Your task to perform on an android device: set an alarm Image 0: 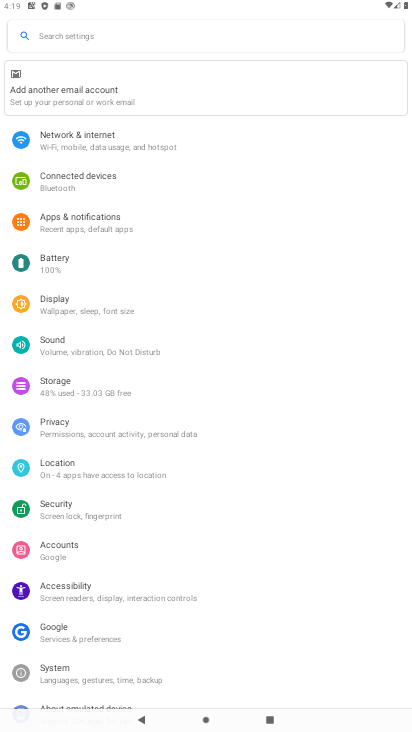
Step 0: press home button
Your task to perform on an android device: set an alarm Image 1: 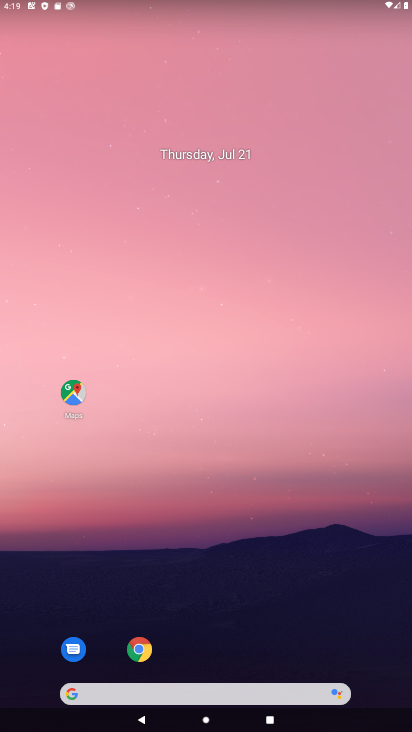
Step 1: drag from (192, 582) to (123, 150)
Your task to perform on an android device: set an alarm Image 2: 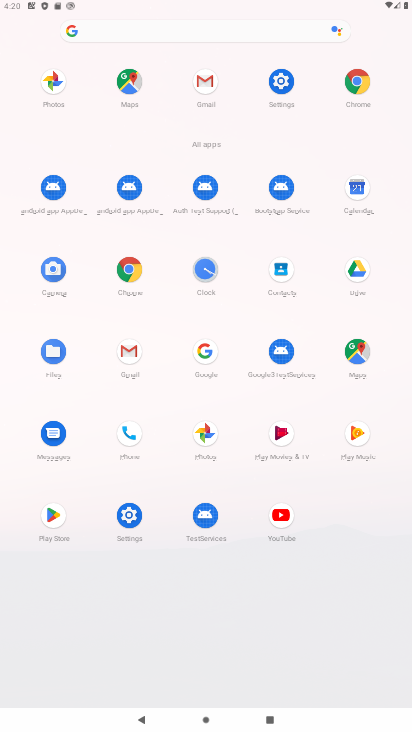
Step 2: click (221, 287)
Your task to perform on an android device: set an alarm Image 3: 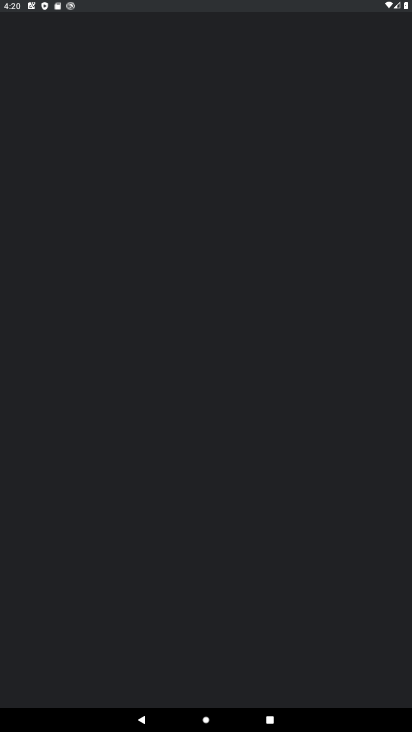
Step 3: click (221, 284)
Your task to perform on an android device: set an alarm Image 4: 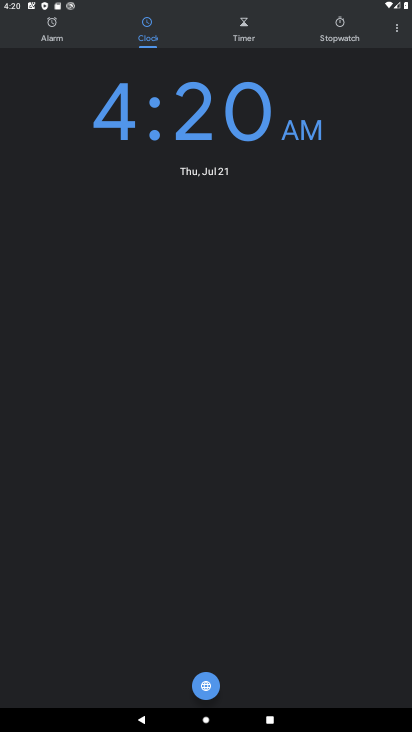
Step 4: drag from (72, 64) to (52, 32)
Your task to perform on an android device: set an alarm Image 5: 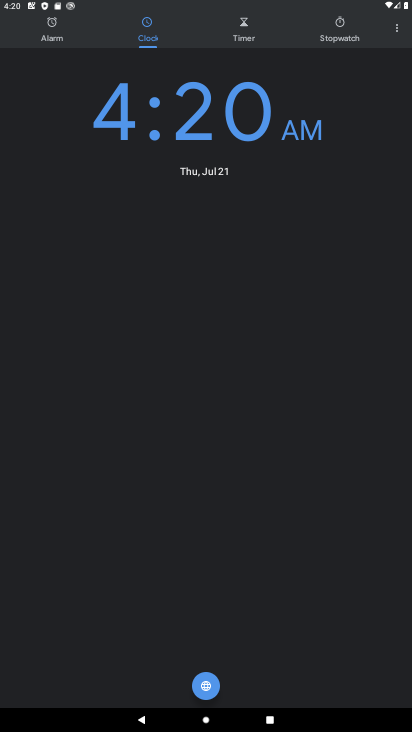
Step 5: click (52, 32)
Your task to perform on an android device: set an alarm Image 6: 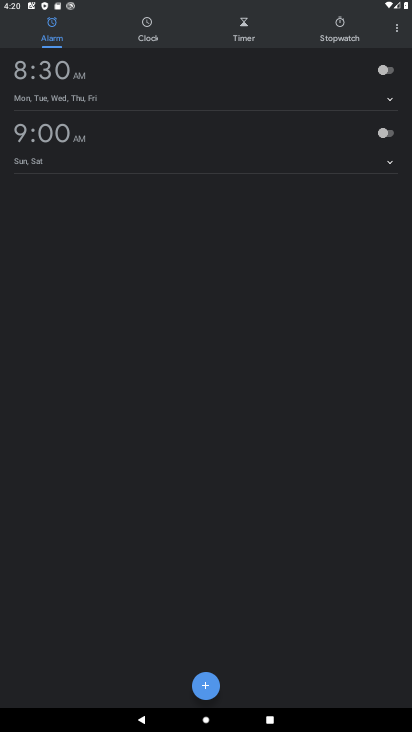
Step 6: click (383, 70)
Your task to perform on an android device: set an alarm Image 7: 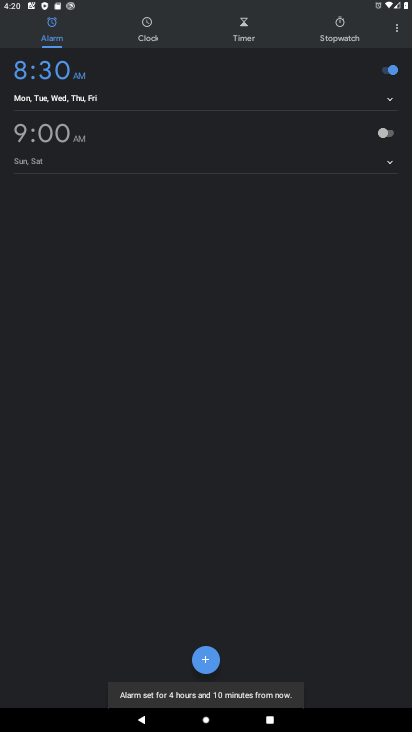
Step 7: click (406, 70)
Your task to perform on an android device: set an alarm Image 8: 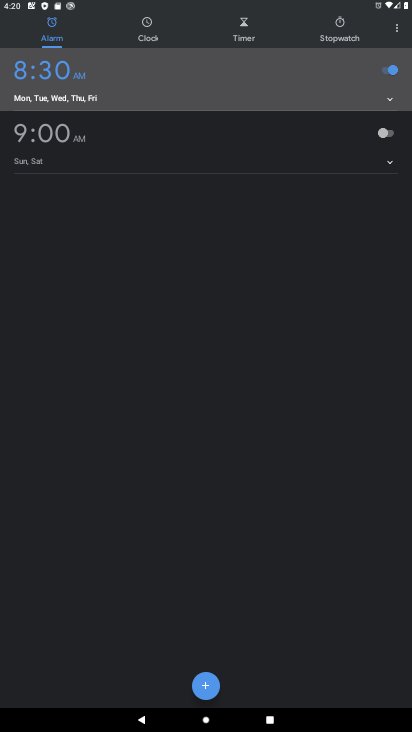
Step 8: task complete